Your task to perform on an android device: open app "Chime – Mobile Banking" (install if not already installed), go to login, and select forgot password Image 0: 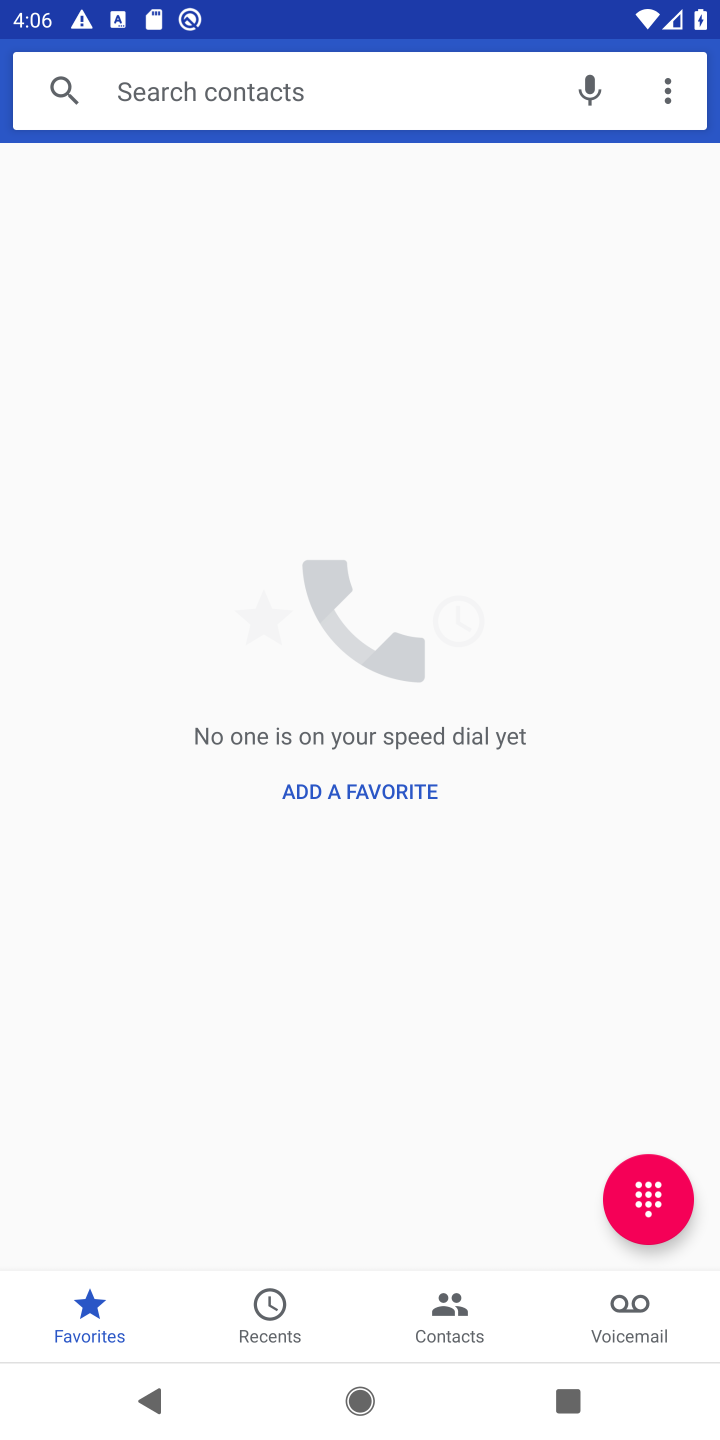
Step 0: press home button
Your task to perform on an android device: open app "Chime – Mobile Banking" (install if not already installed), go to login, and select forgot password Image 1: 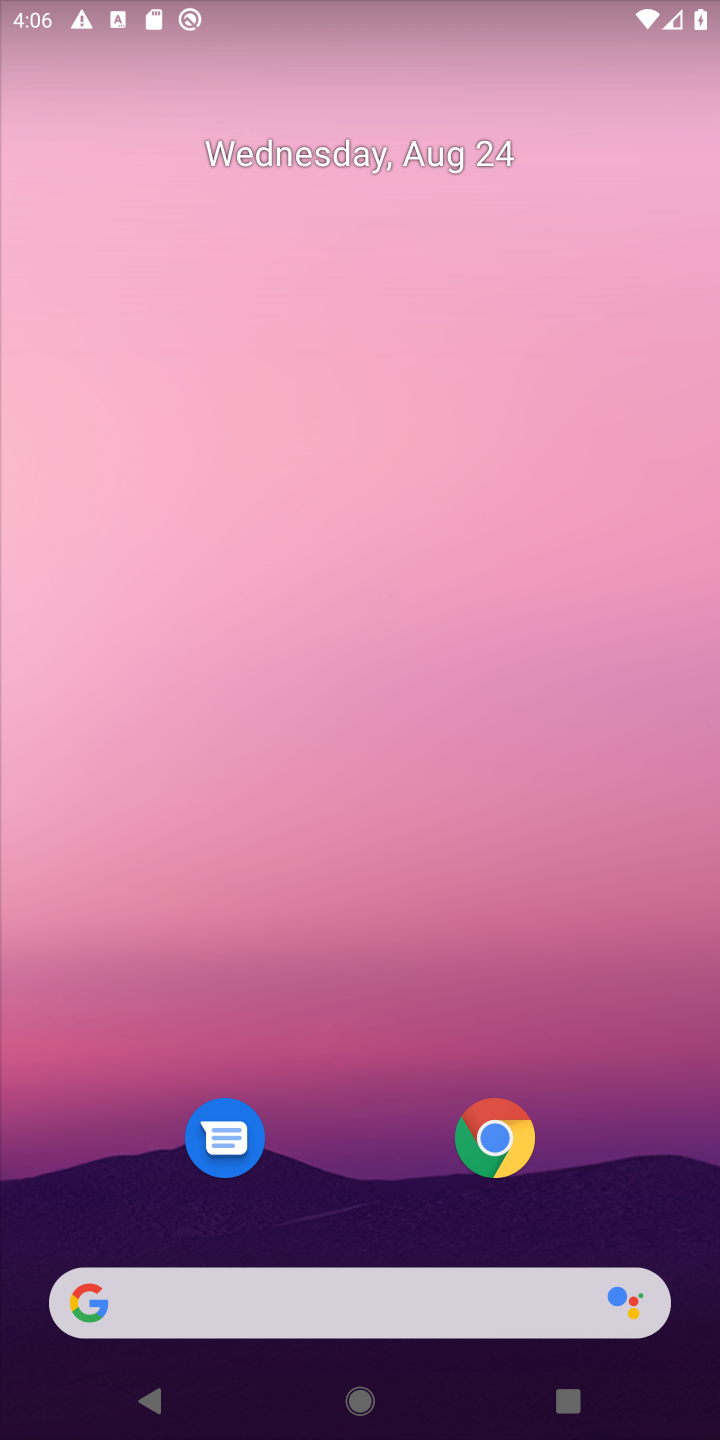
Step 1: press home button
Your task to perform on an android device: open app "Chime – Mobile Banking" (install if not already installed), go to login, and select forgot password Image 2: 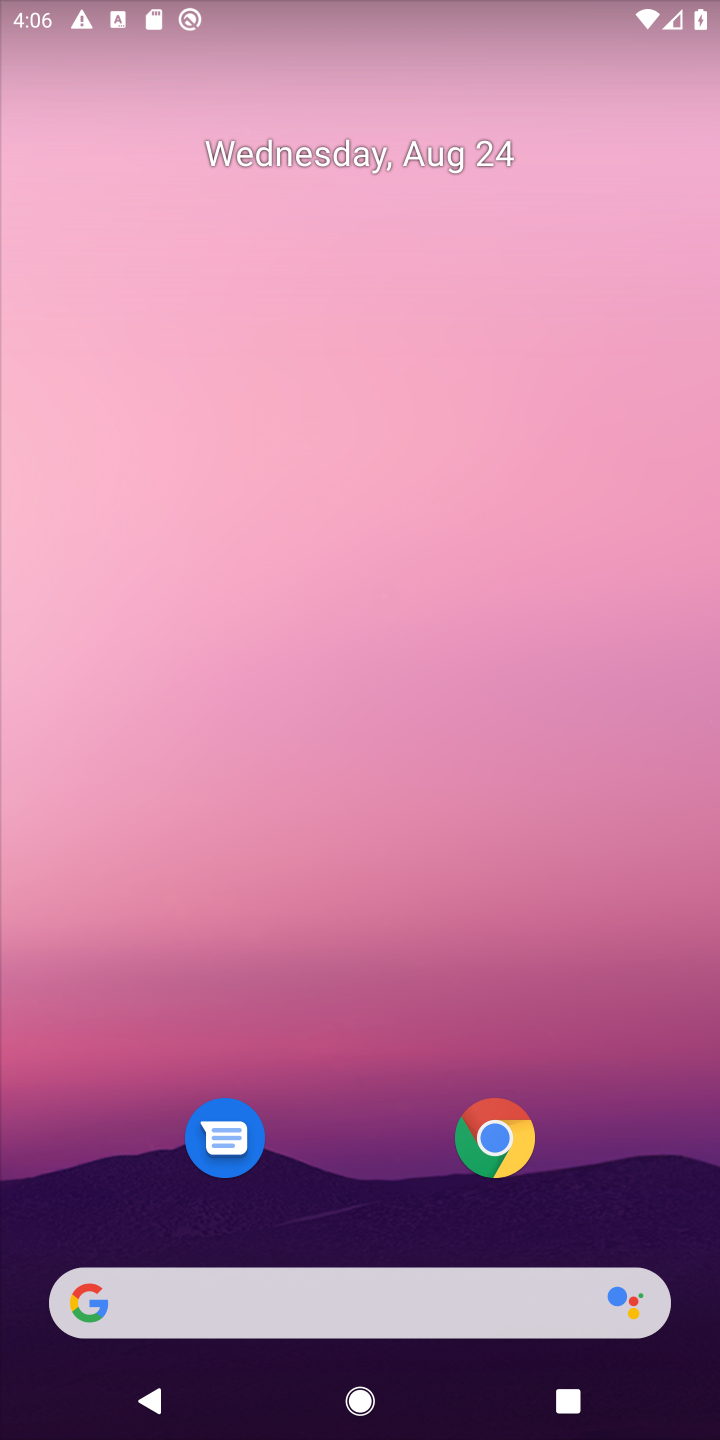
Step 2: press home button
Your task to perform on an android device: open app "Chime – Mobile Banking" (install if not already installed), go to login, and select forgot password Image 3: 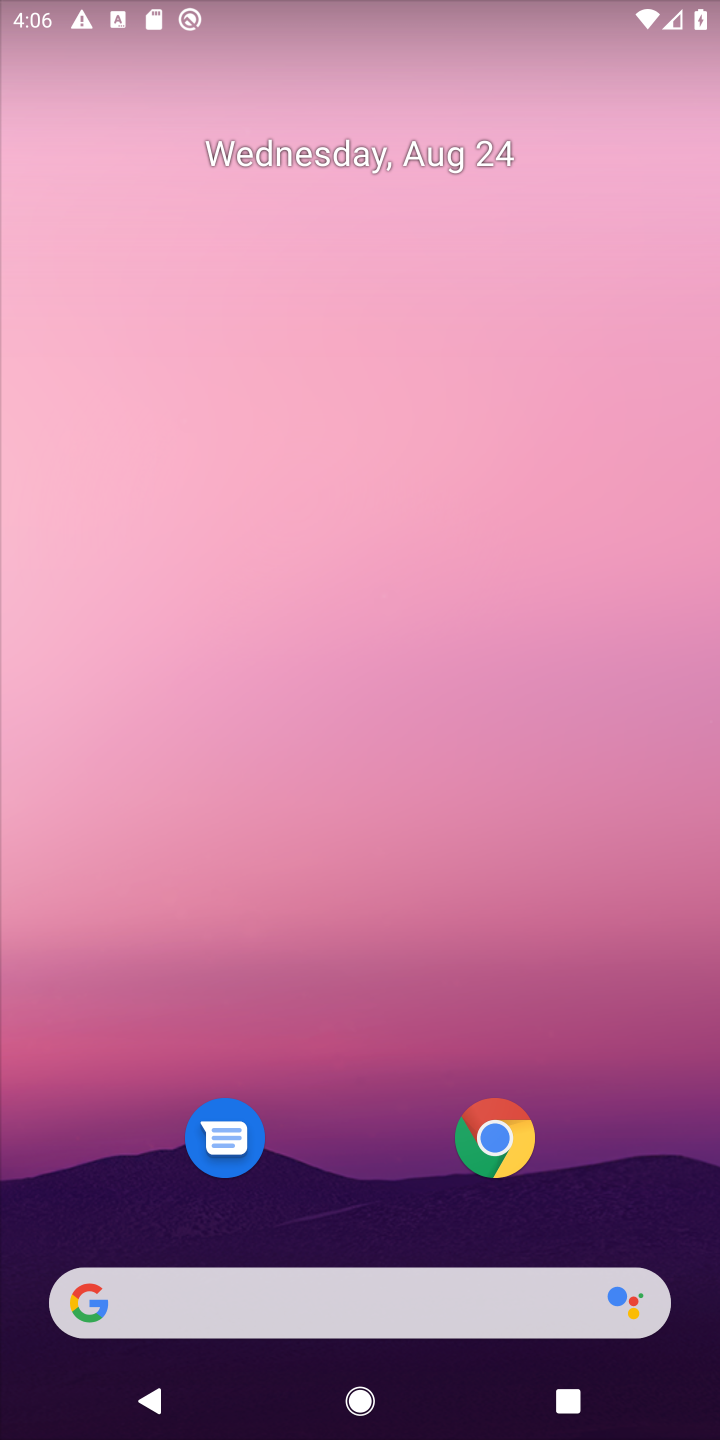
Step 3: drag from (375, 824) to (375, 45)
Your task to perform on an android device: open app "Chime – Mobile Banking" (install if not already installed), go to login, and select forgot password Image 4: 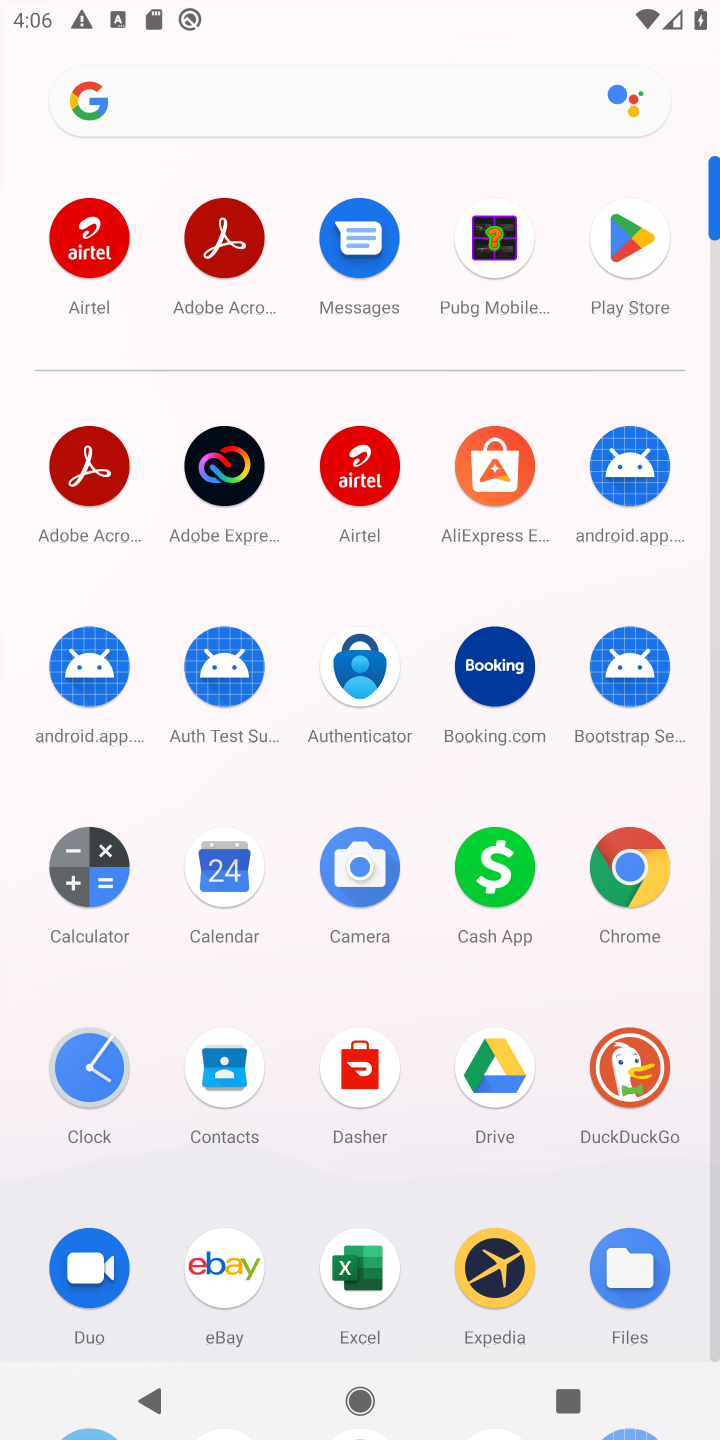
Step 4: click (621, 234)
Your task to perform on an android device: open app "Chime – Mobile Banking" (install if not already installed), go to login, and select forgot password Image 5: 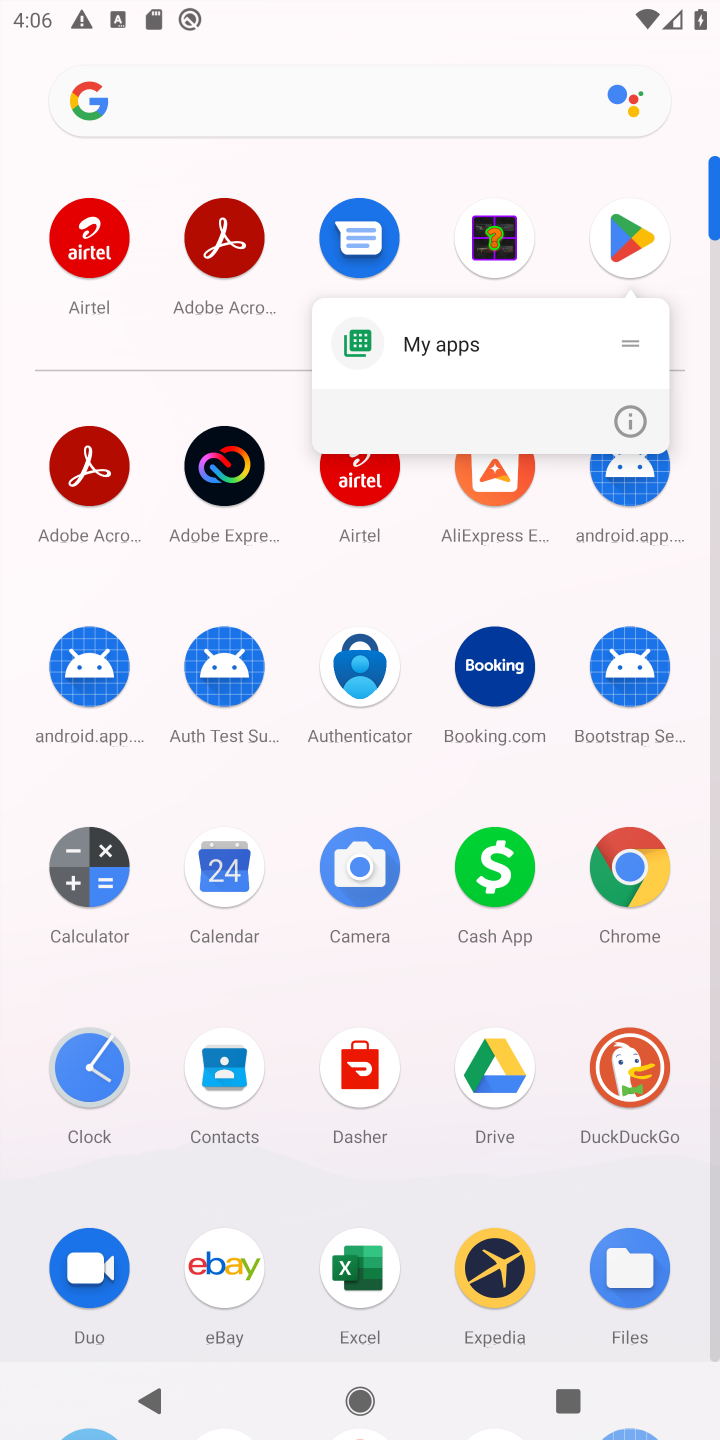
Step 5: click (621, 234)
Your task to perform on an android device: open app "Chime – Mobile Banking" (install if not already installed), go to login, and select forgot password Image 6: 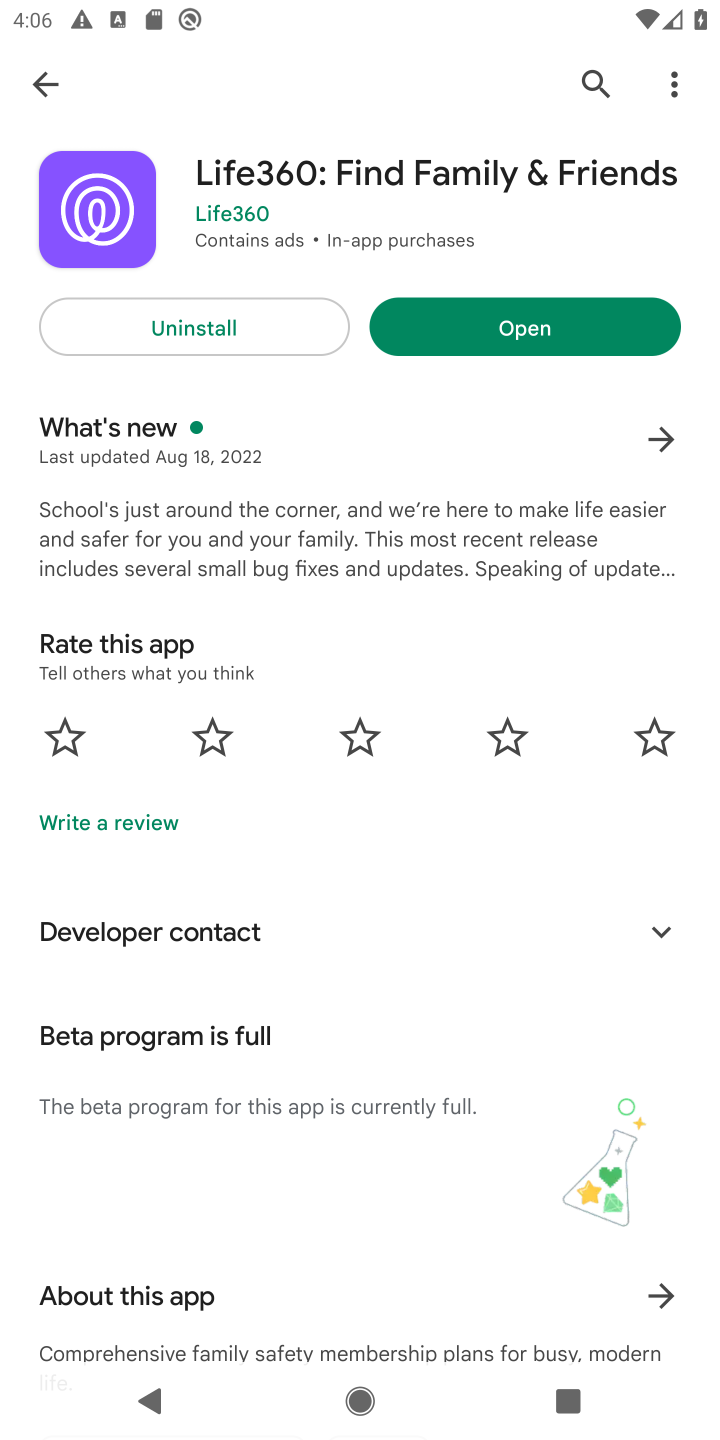
Step 6: click (589, 74)
Your task to perform on an android device: open app "Chime – Mobile Banking" (install if not already installed), go to login, and select forgot password Image 7: 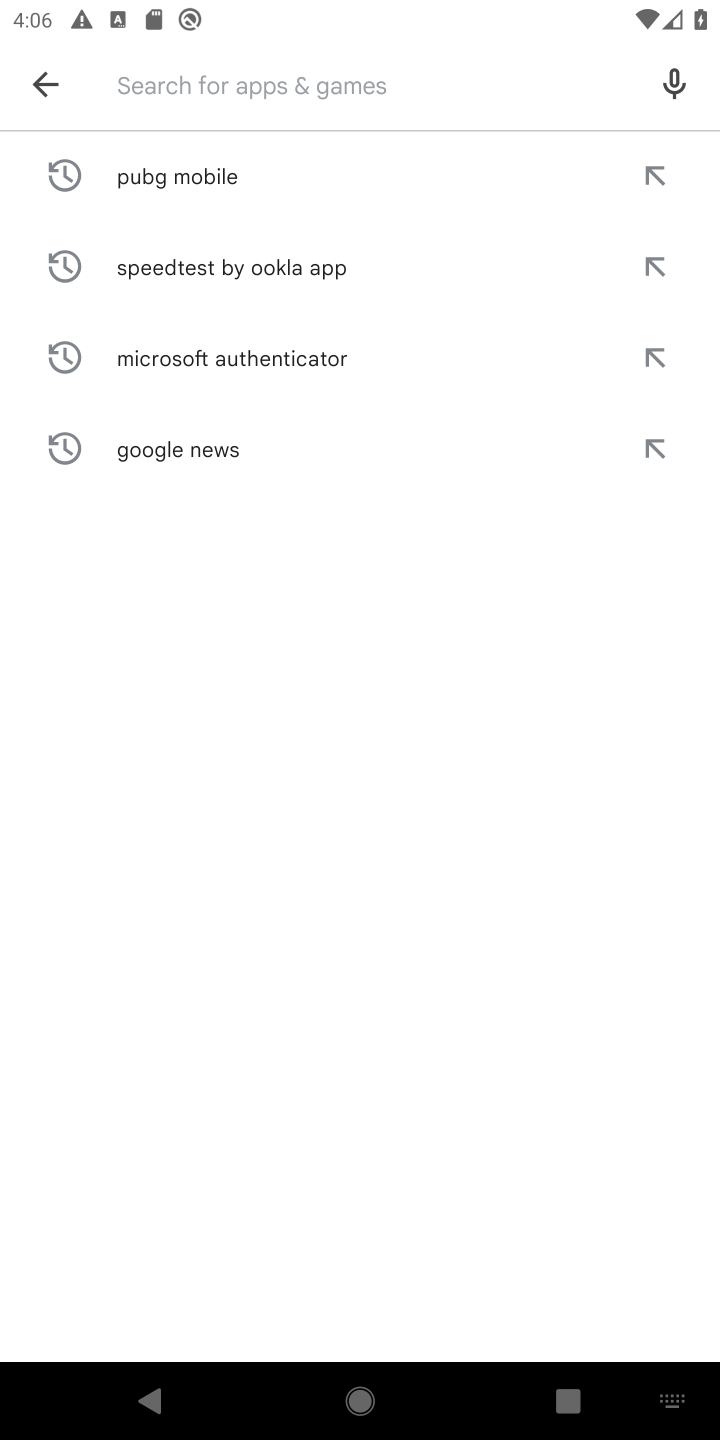
Step 7: type "Chime – Mobile Banking"
Your task to perform on an android device: open app "Chime – Mobile Banking" (install if not already installed), go to login, and select forgot password Image 8: 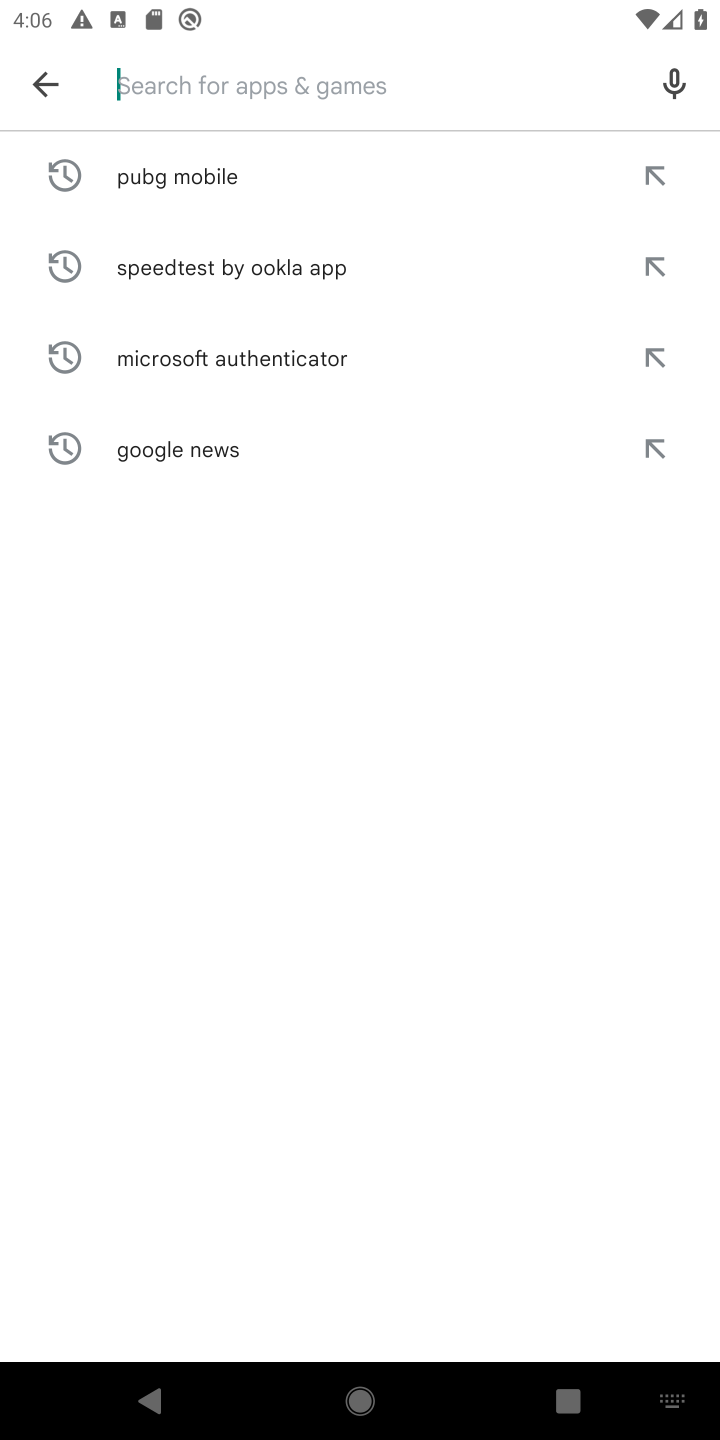
Step 8: type ""
Your task to perform on an android device: open app "Chime – Mobile Banking" (install if not already installed), go to login, and select forgot password Image 9: 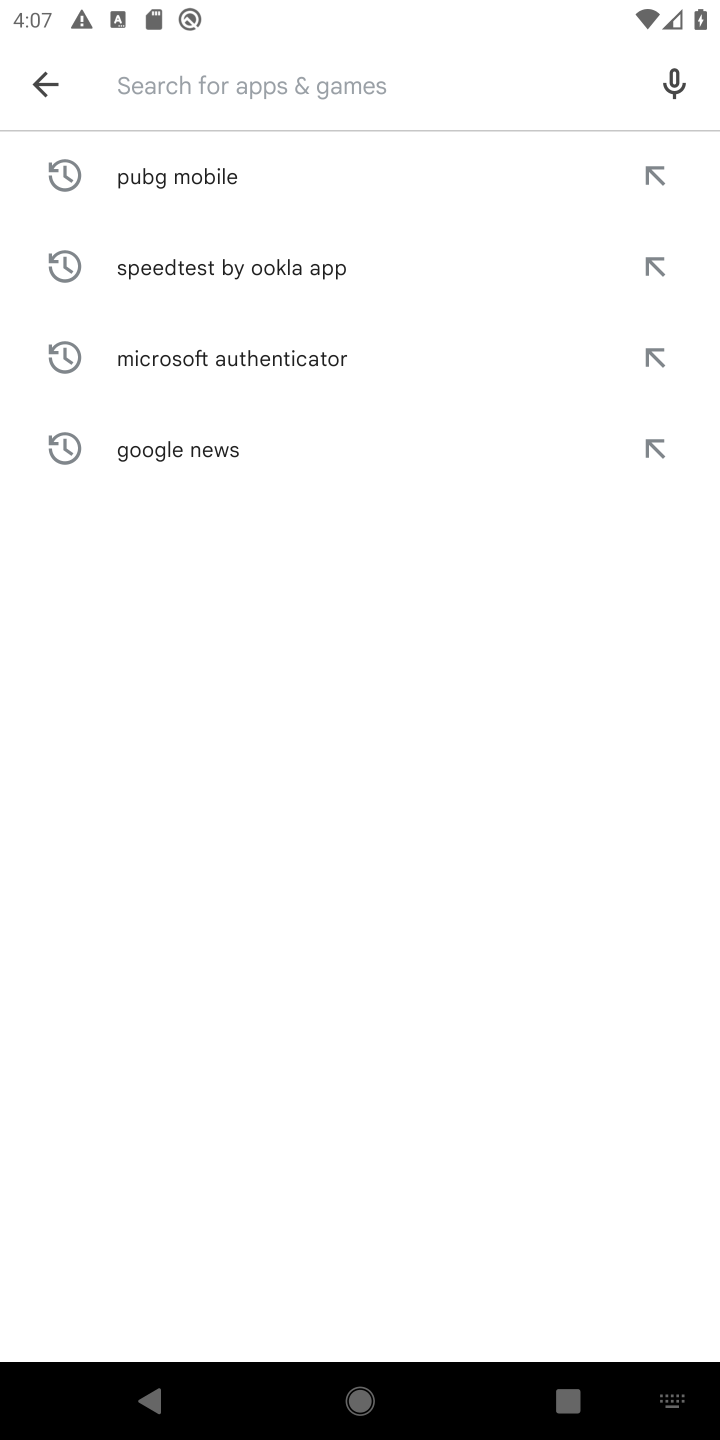
Step 9: type "Chime – Mobile Banking"
Your task to perform on an android device: open app "Chime – Mobile Banking" (install if not already installed), go to login, and select forgot password Image 10: 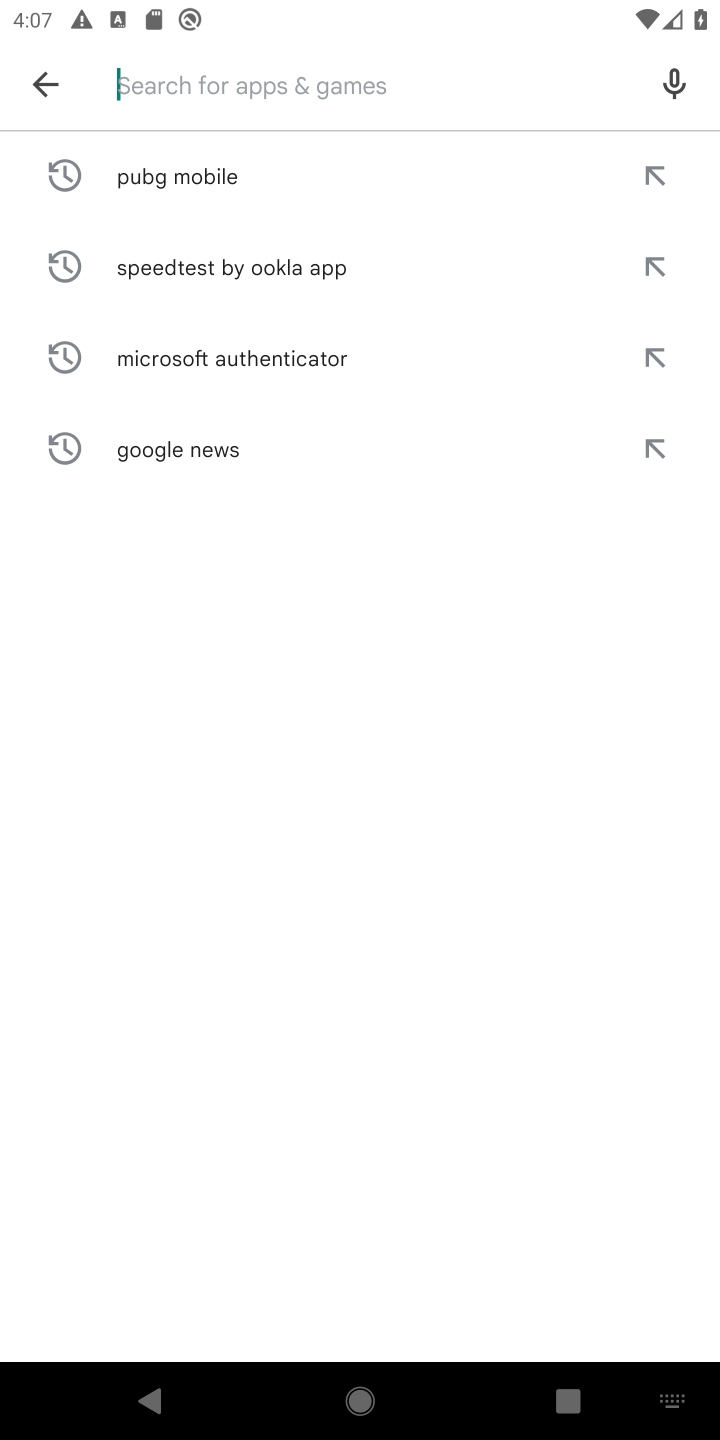
Step 10: type ""
Your task to perform on an android device: open app "Chime – Mobile Banking" (install if not already installed), go to login, and select forgot password Image 11: 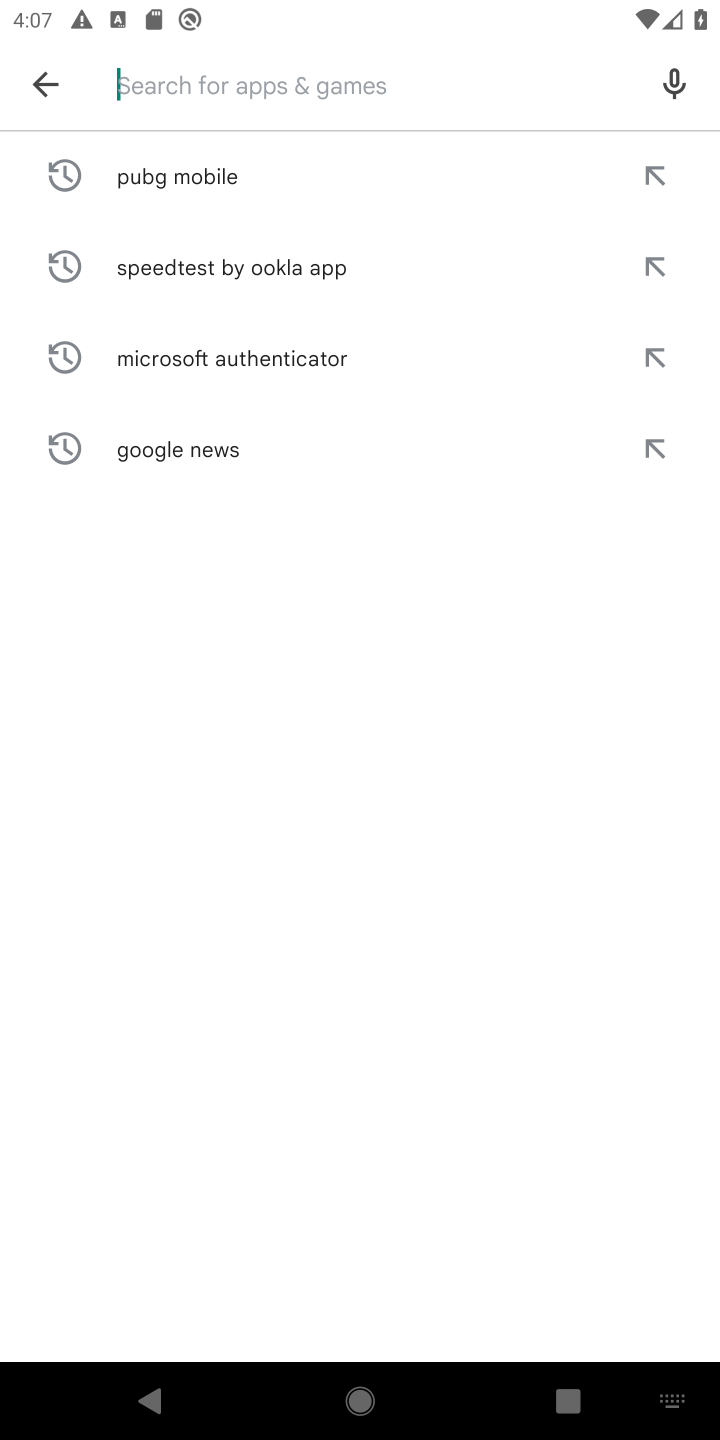
Step 11: type "Chime - Mobile Banking"
Your task to perform on an android device: open app "Chime – Mobile Banking" (install if not already installed), go to login, and select forgot password Image 12: 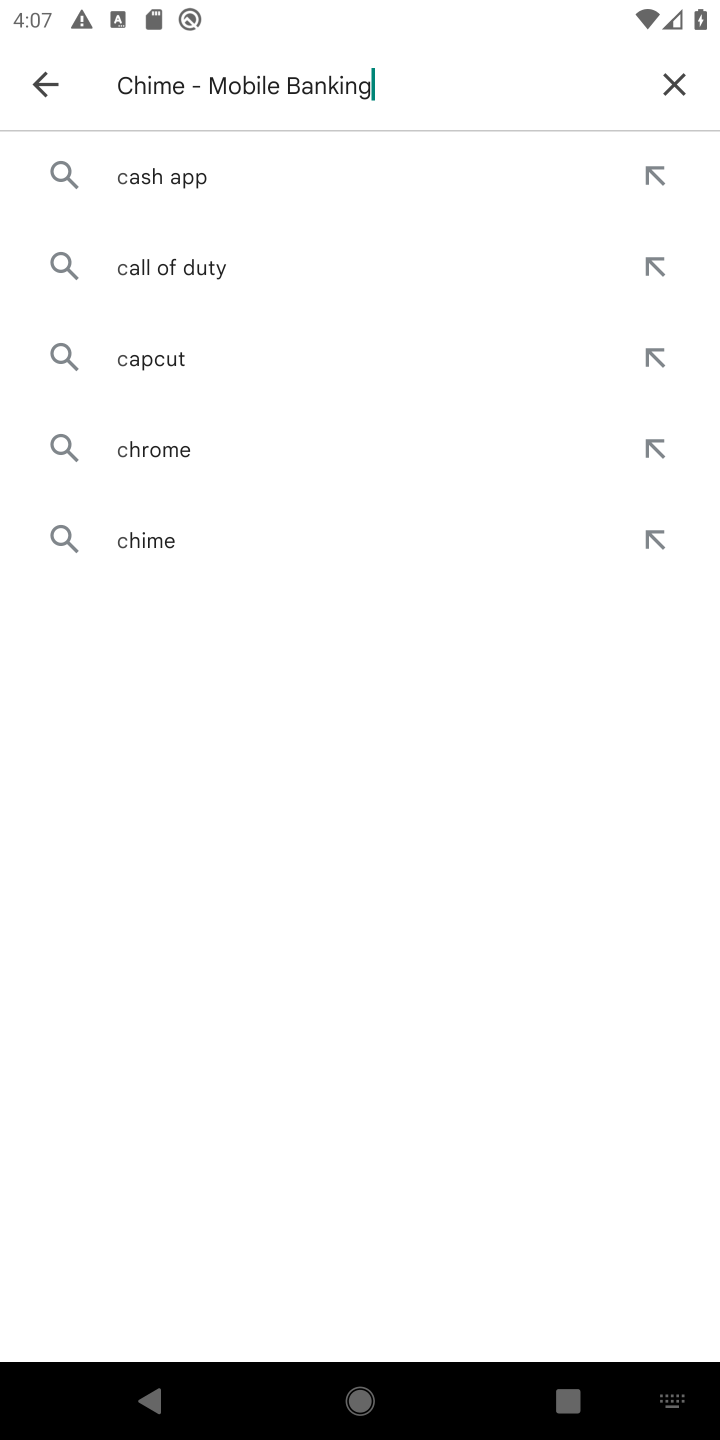
Step 12: type ""
Your task to perform on an android device: open app "Chime – Mobile Banking" (install if not already installed), go to login, and select forgot password Image 13: 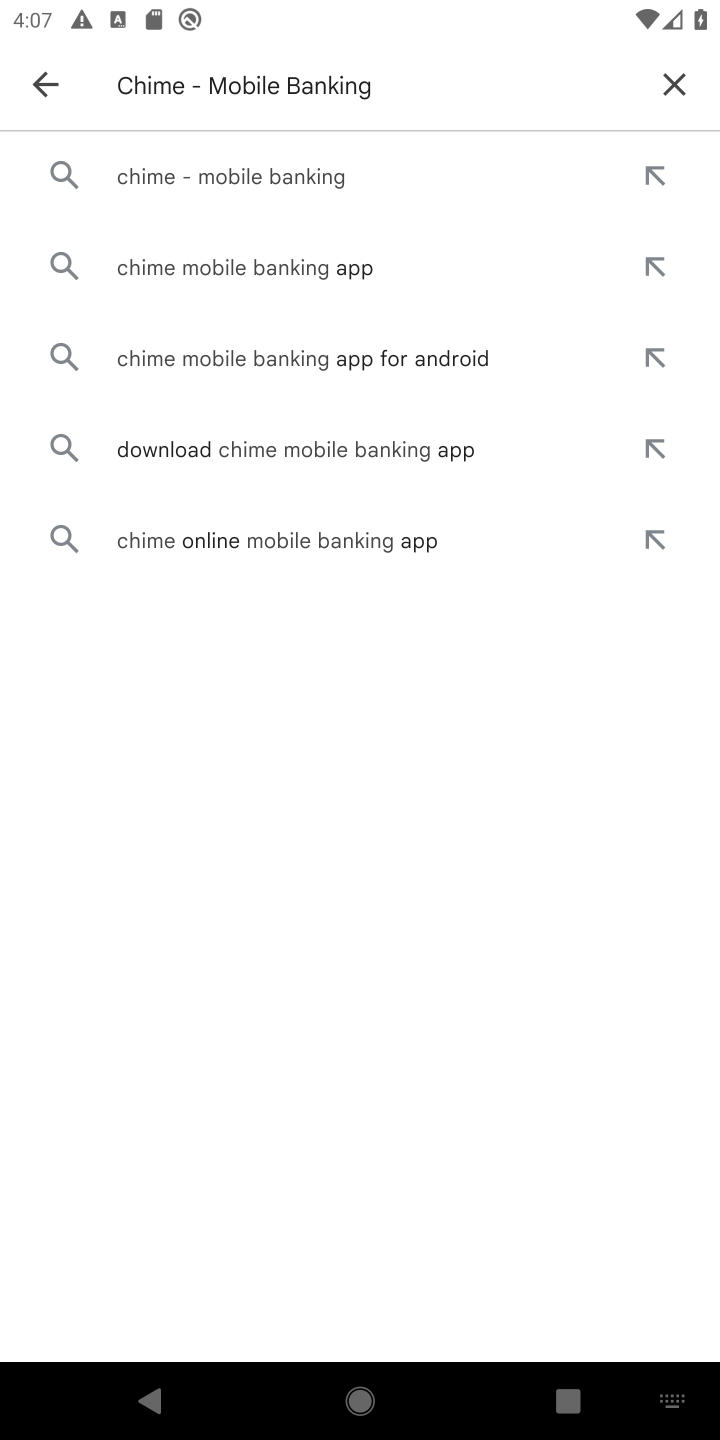
Step 13: click (250, 173)
Your task to perform on an android device: open app "Chime – Mobile Banking" (install if not already installed), go to login, and select forgot password Image 14: 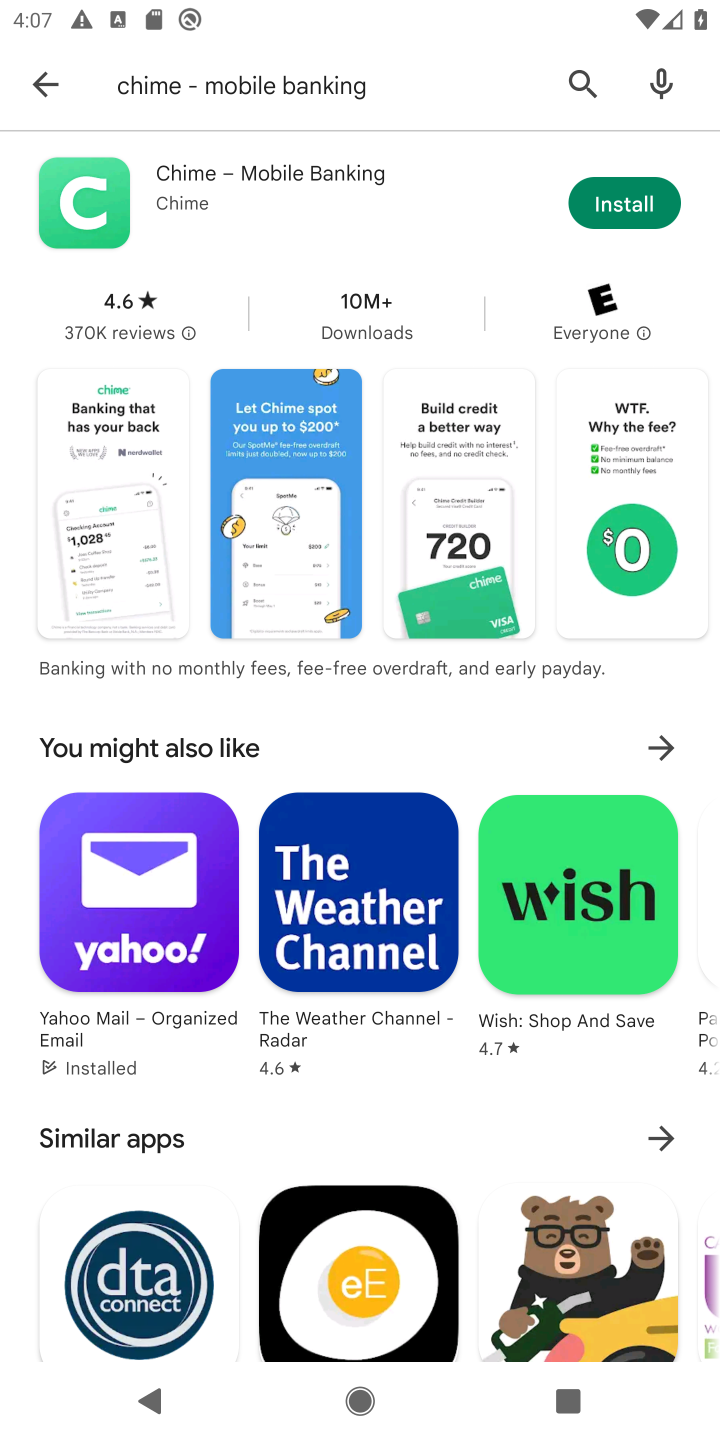
Step 14: click (644, 193)
Your task to perform on an android device: open app "Chime – Mobile Banking" (install if not already installed), go to login, and select forgot password Image 15: 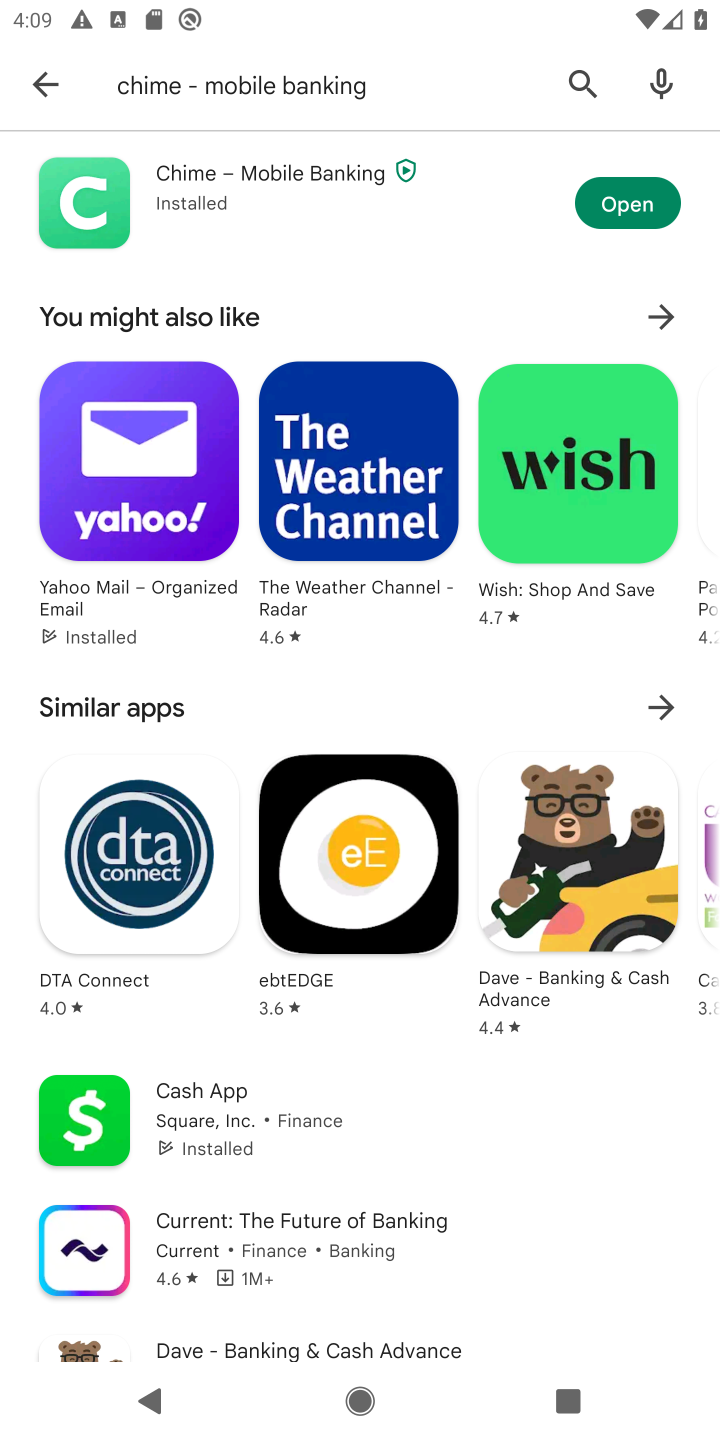
Step 15: click (613, 201)
Your task to perform on an android device: open app "Chime – Mobile Banking" (install if not already installed), go to login, and select forgot password Image 16: 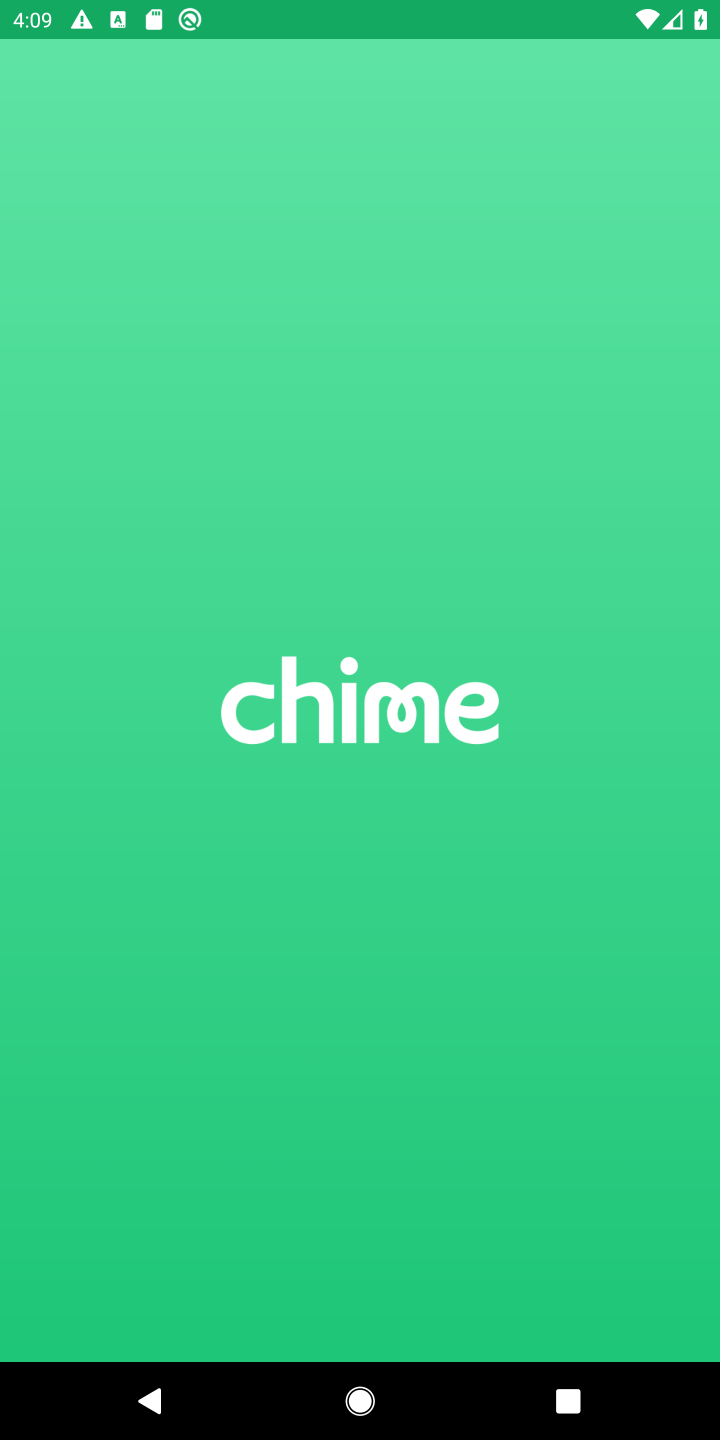
Step 16: task complete